Your task to perform on an android device: open app "eBay: The shopping marketplace" (install if not already installed) and go to login screen Image 0: 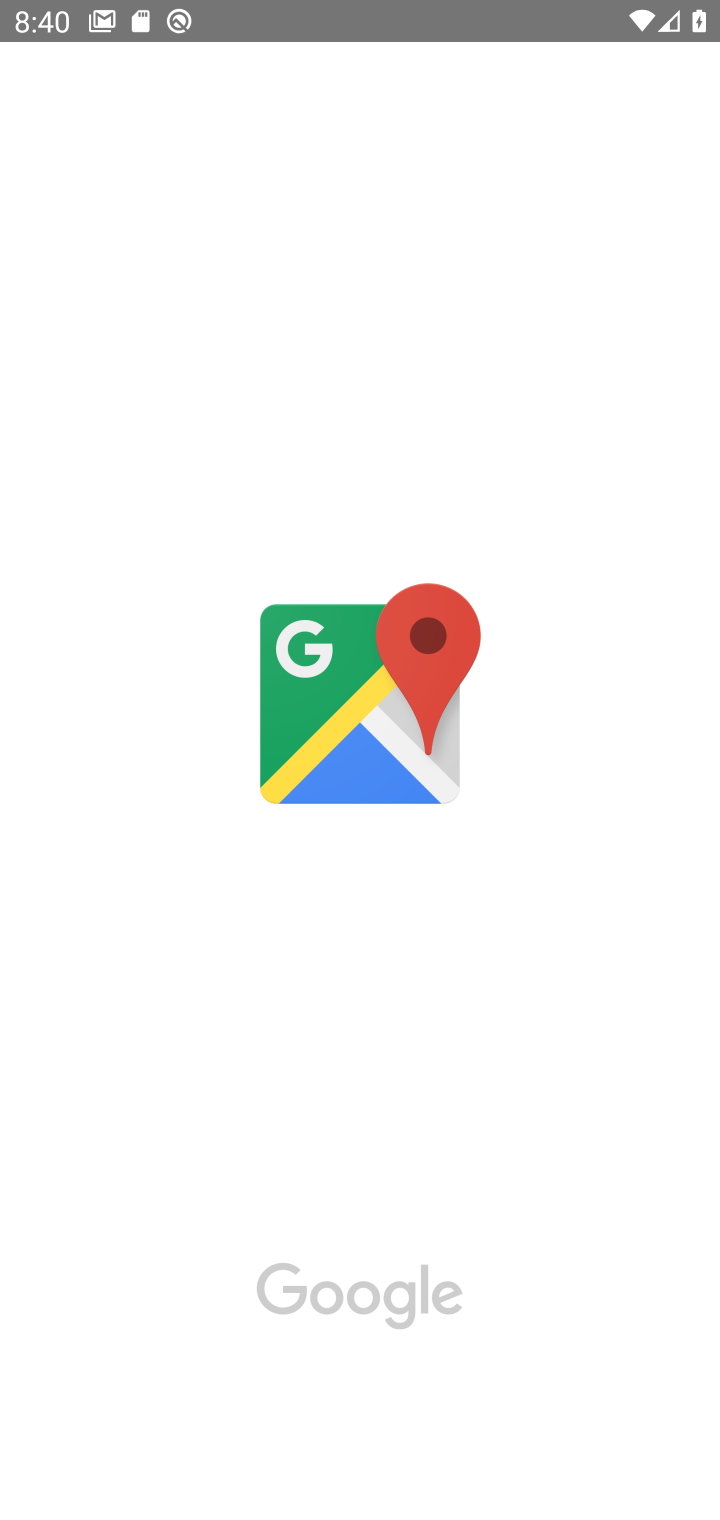
Step 0: press home button
Your task to perform on an android device: open app "eBay: The shopping marketplace" (install if not already installed) and go to login screen Image 1: 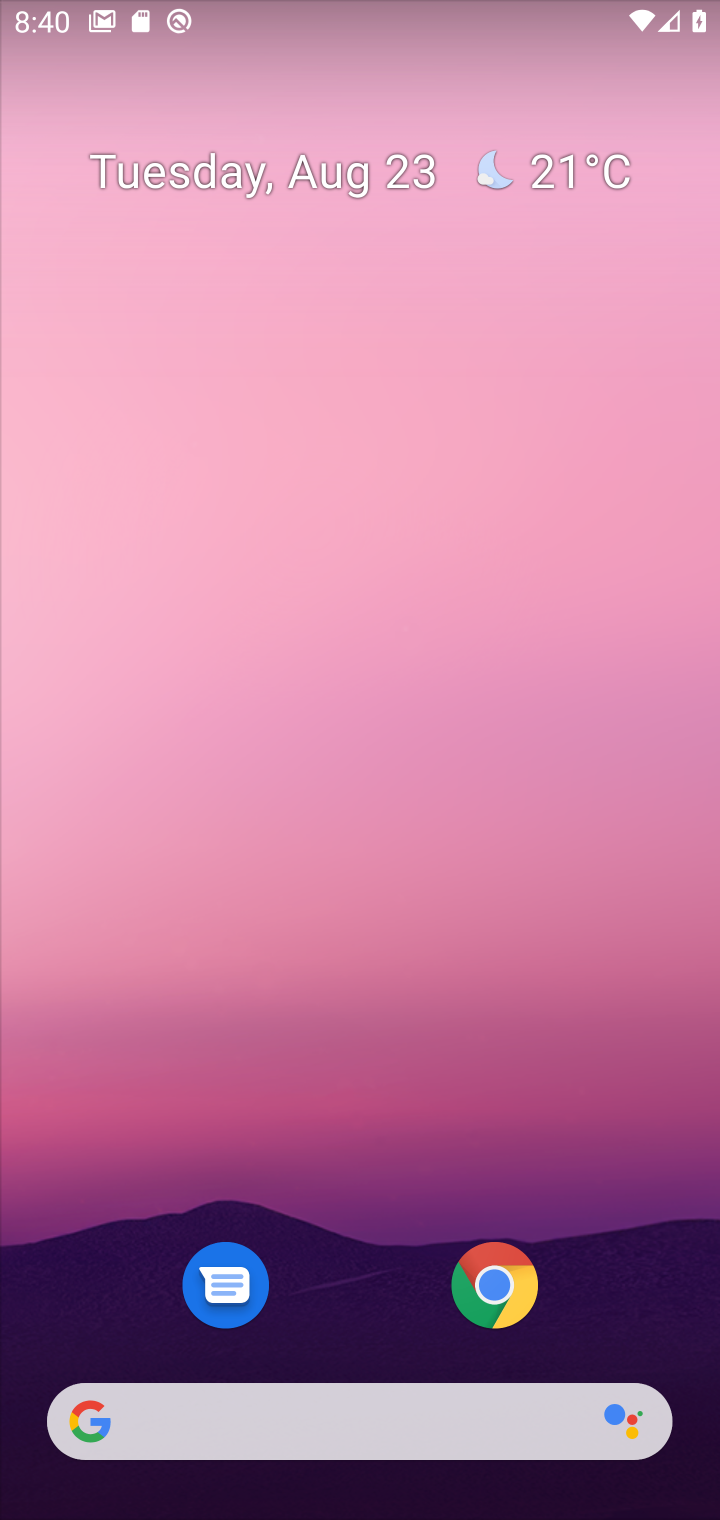
Step 1: drag from (666, 1306) to (676, 275)
Your task to perform on an android device: open app "eBay: The shopping marketplace" (install if not already installed) and go to login screen Image 2: 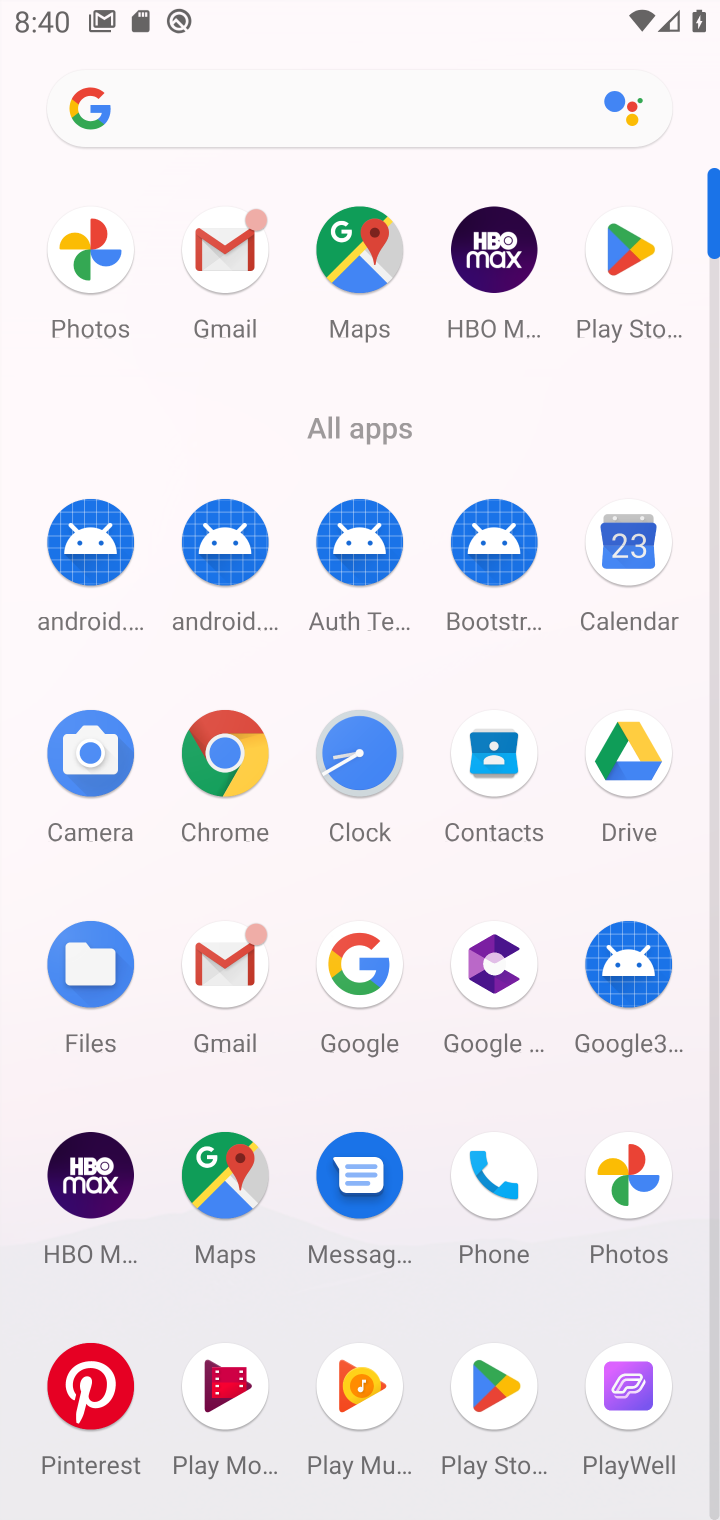
Step 2: click (498, 1385)
Your task to perform on an android device: open app "eBay: The shopping marketplace" (install if not already installed) and go to login screen Image 3: 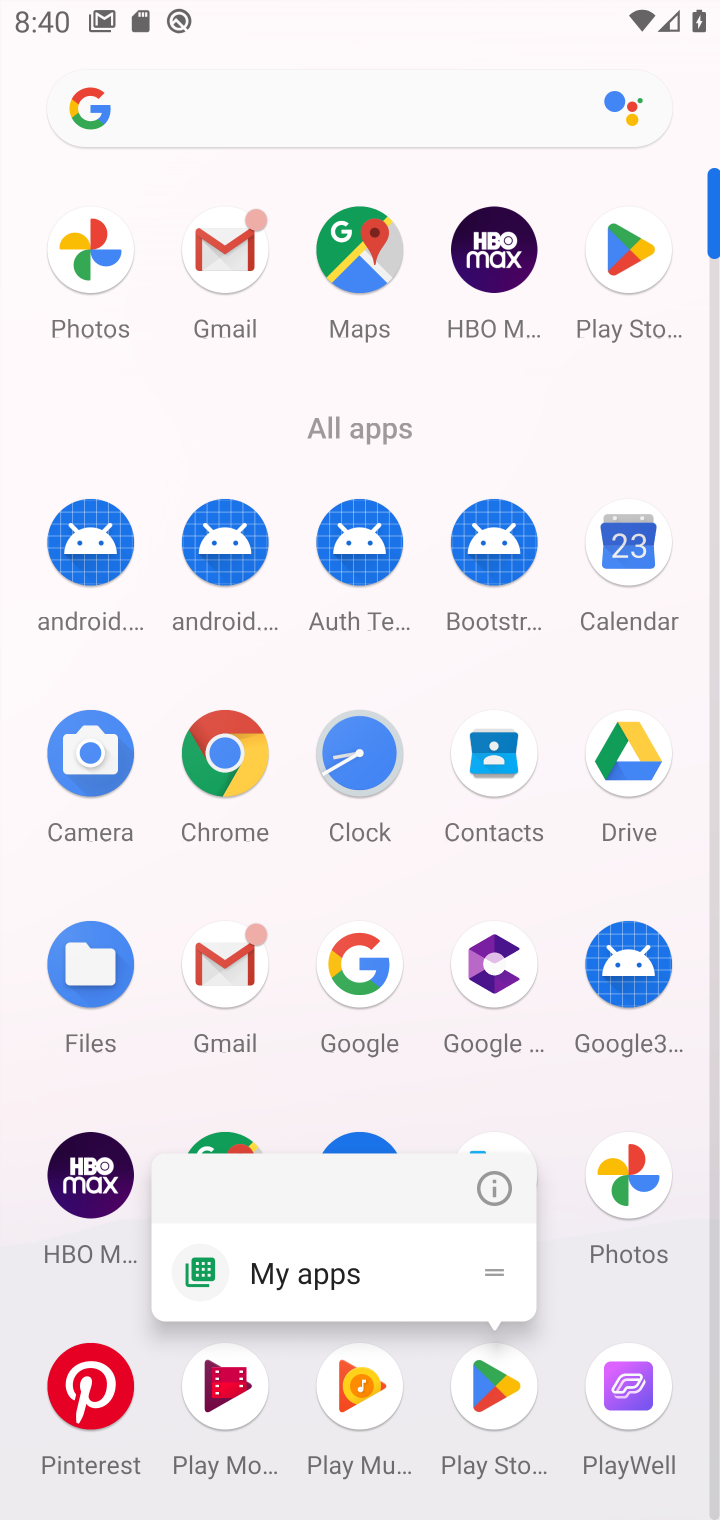
Step 3: click (491, 1390)
Your task to perform on an android device: open app "eBay: The shopping marketplace" (install if not already installed) and go to login screen Image 4: 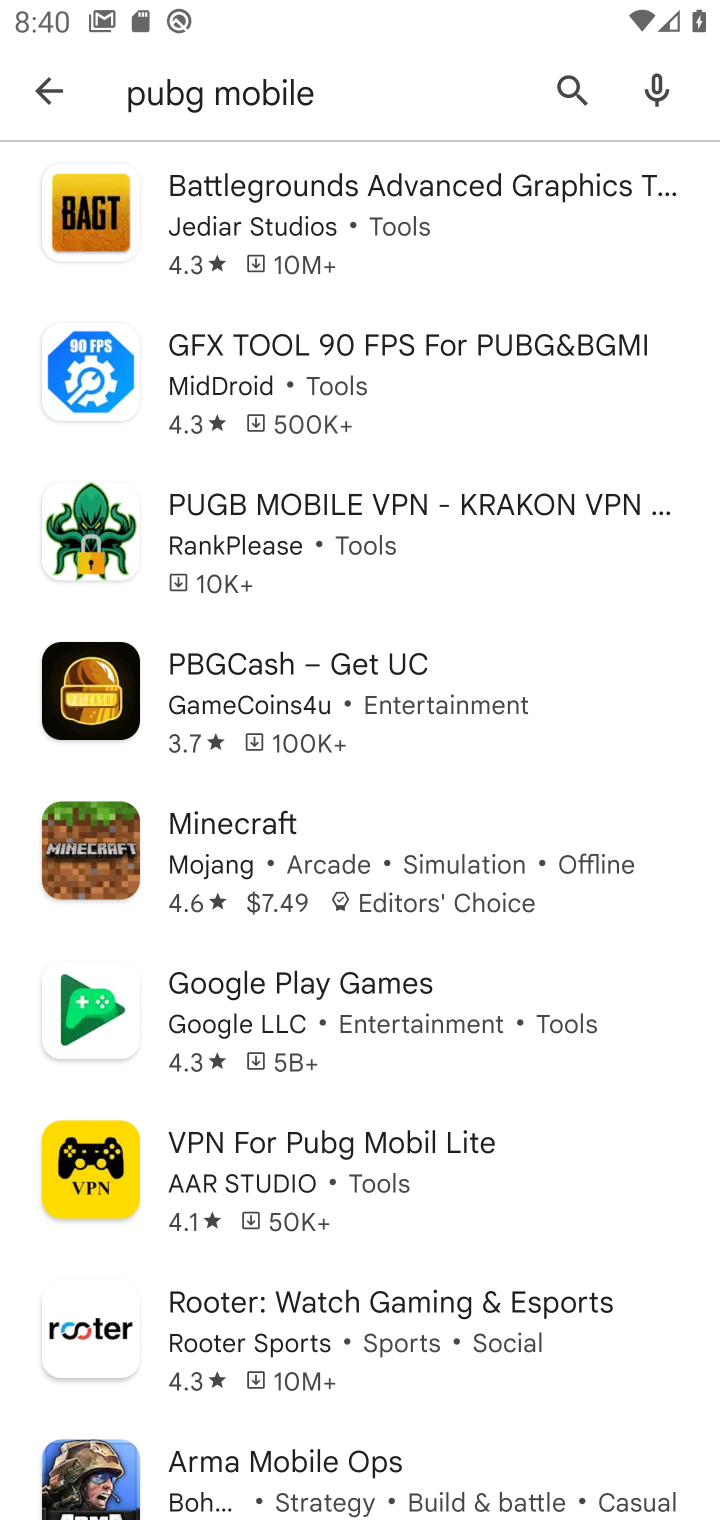
Step 4: click (569, 88)
Your task to perform on an android device: open app "eBay: The shopping marketplace" (install if not already installed) and go to login screen Image 5: 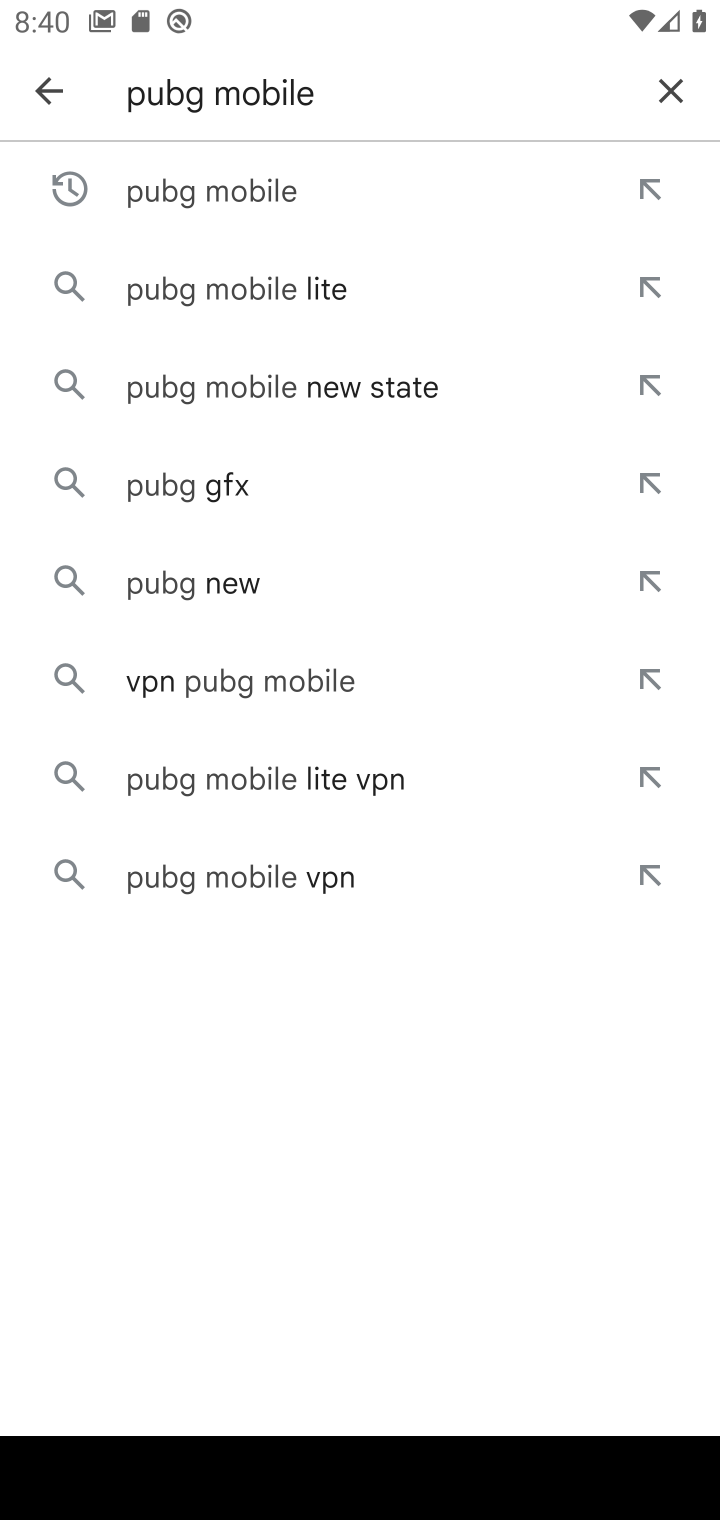
Step 5: click (667, 84)
Your task to perform on an android device: open app "eBay: The shopping marketplace" (install if not already installed) and go to login screen Image 6: 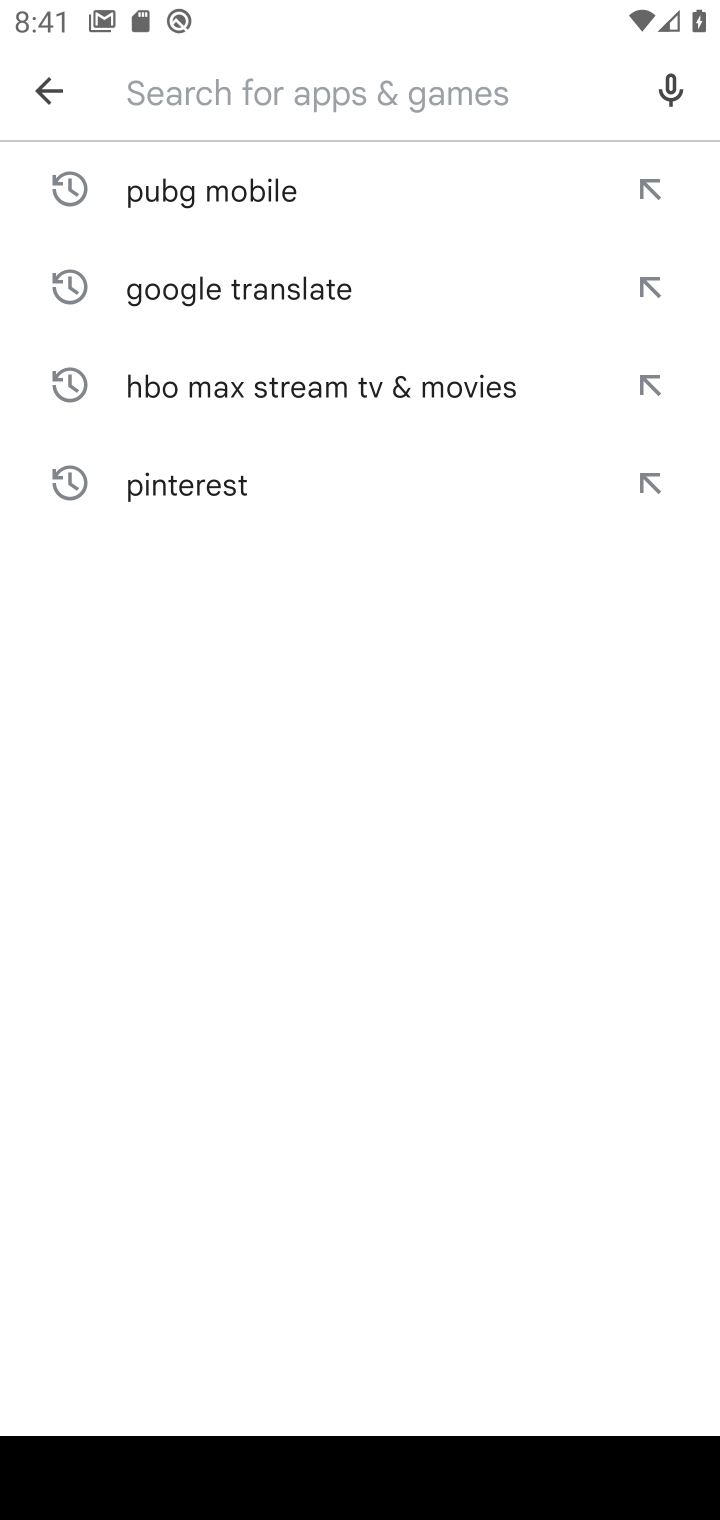
Step 6: type "eBay: The shopping marketplace"
Your task to perform on an android device: open app "eBay: The shopping marketplace" (install if not already installed) and go to login screen Image 7: 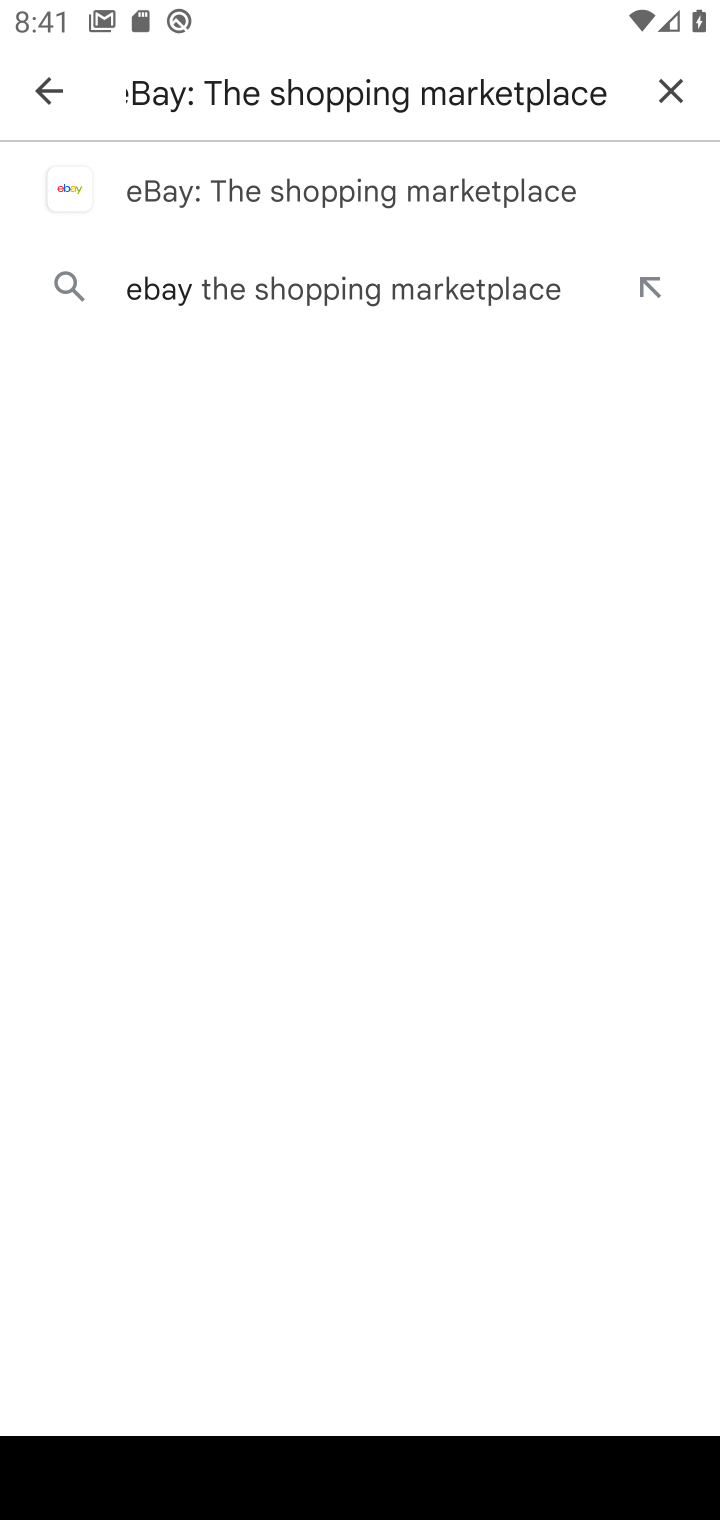
Step 7: click (242, 183)
Your task to perform on an android device: open app "eBay: The shopping marketplace" (install if not already installed) and go to login screen Image 8: 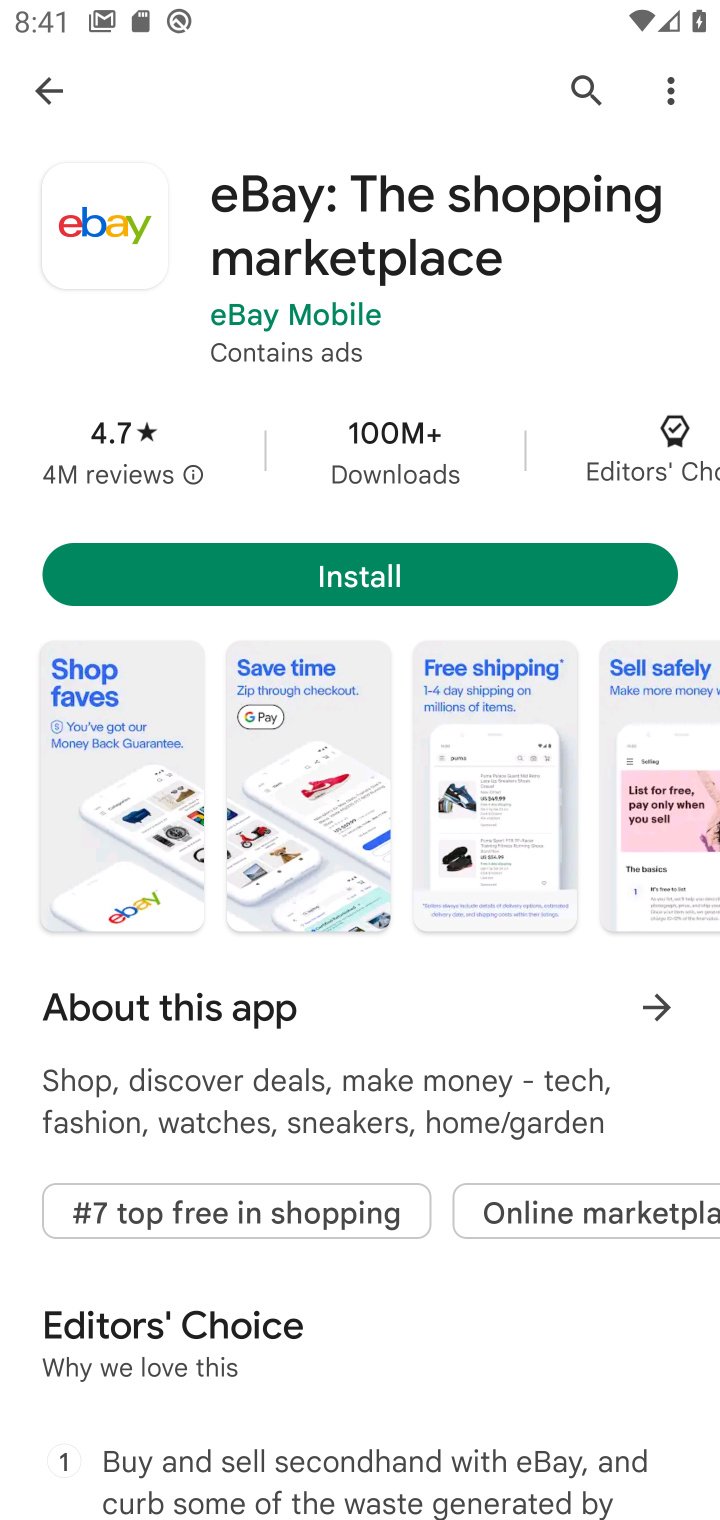
Step 8: click (351, 572)
Your task to perform on an android device: open app "eBay: The shopping marketplace" (install if not already installed) and go to login screen Image 9: 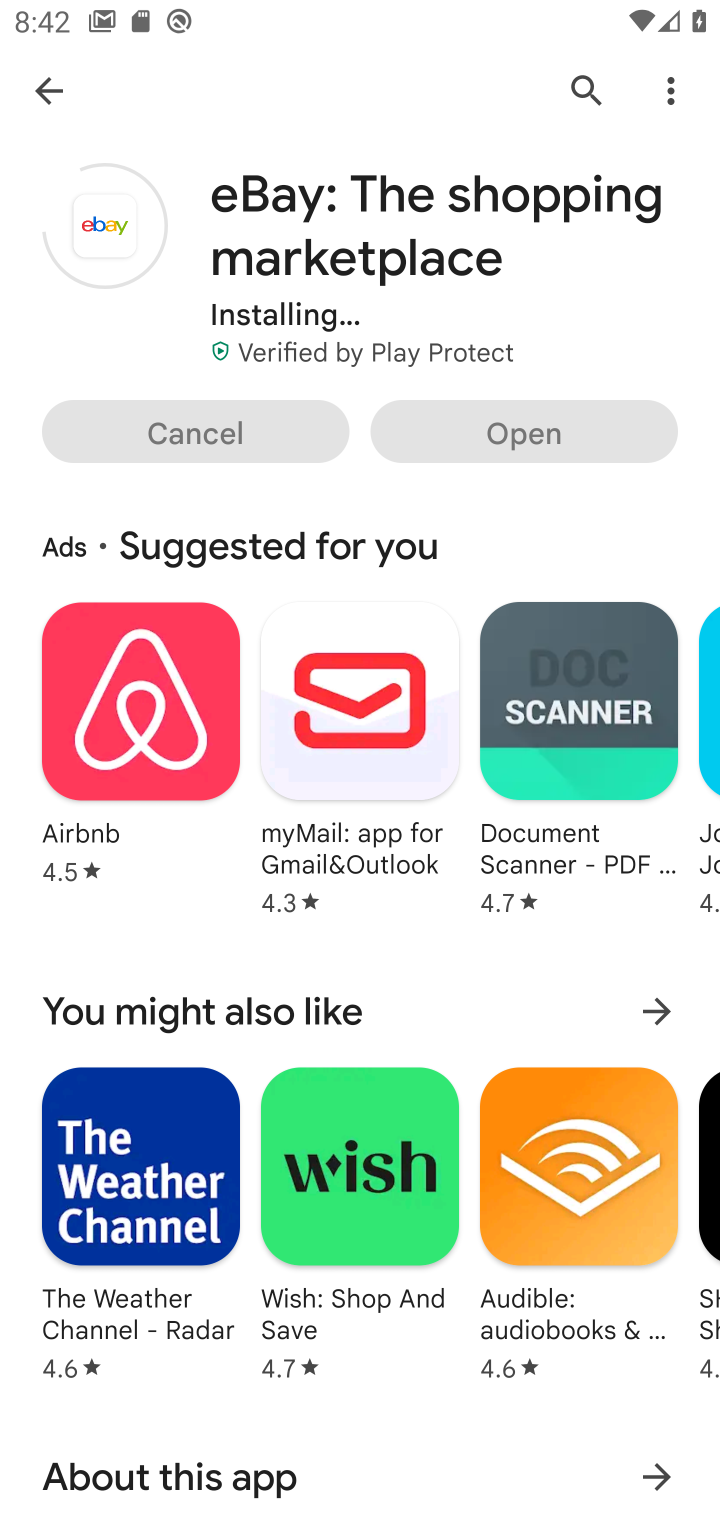
Step 9: drag from (369, 249) to (367, 342)
Your task to perform on an android device: open app "eBay: The shopping marketplace" (install if not already installed) and go to login screen Image 10: 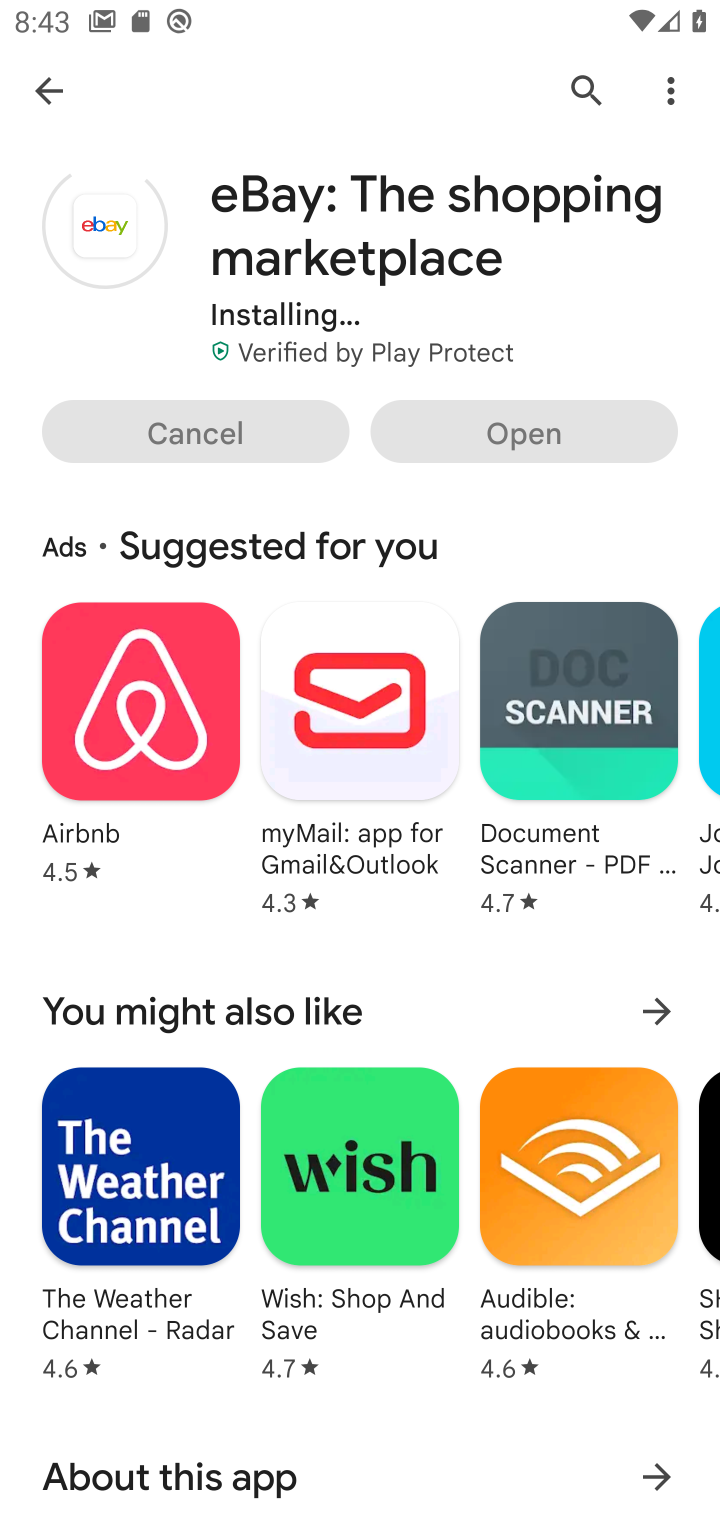
Step 10: click (364, 455)
Your task to perform on an android device: open app "eBay: The shopping marketplace" (install if not already installed) and go to login screen Image 11: 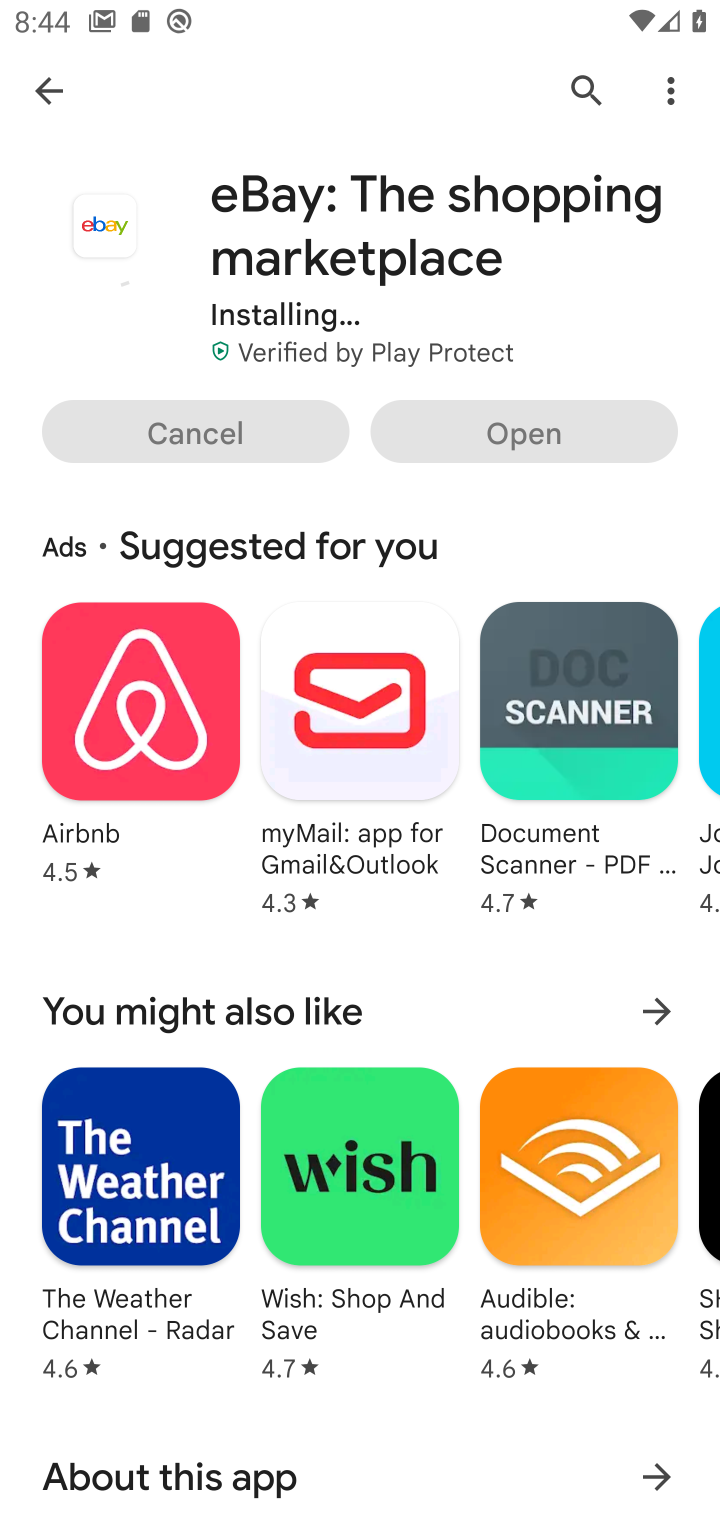
Step 11: click (518, 424)
Your task to perform on an android device: open app "eBay: The shopping marketplace" (install if not already installed) and go to login screen Image 12: 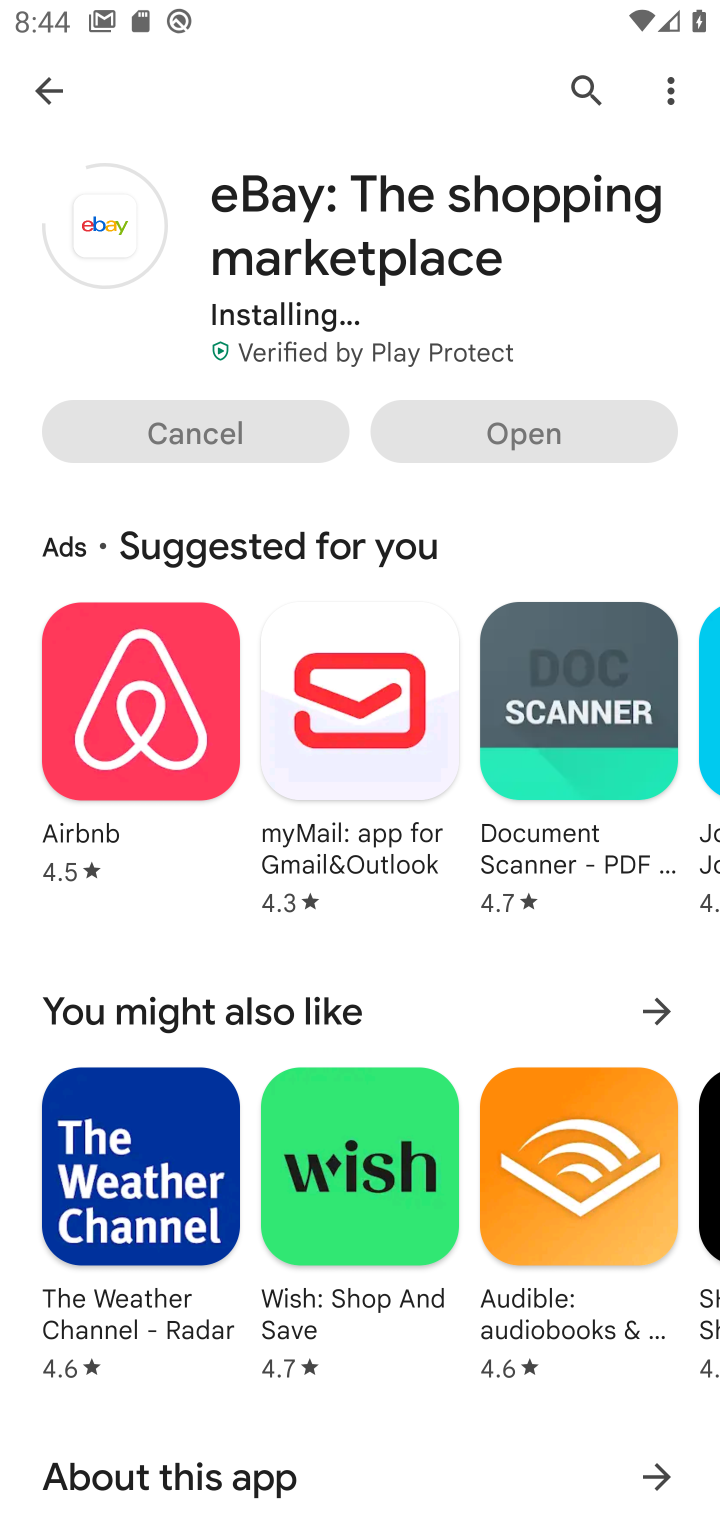
Step 12: click (411, 448)
Your task to perform on an android device: open app "eBay: The shopping marketplace" (install if not already installed) and go to login screen Image 13: 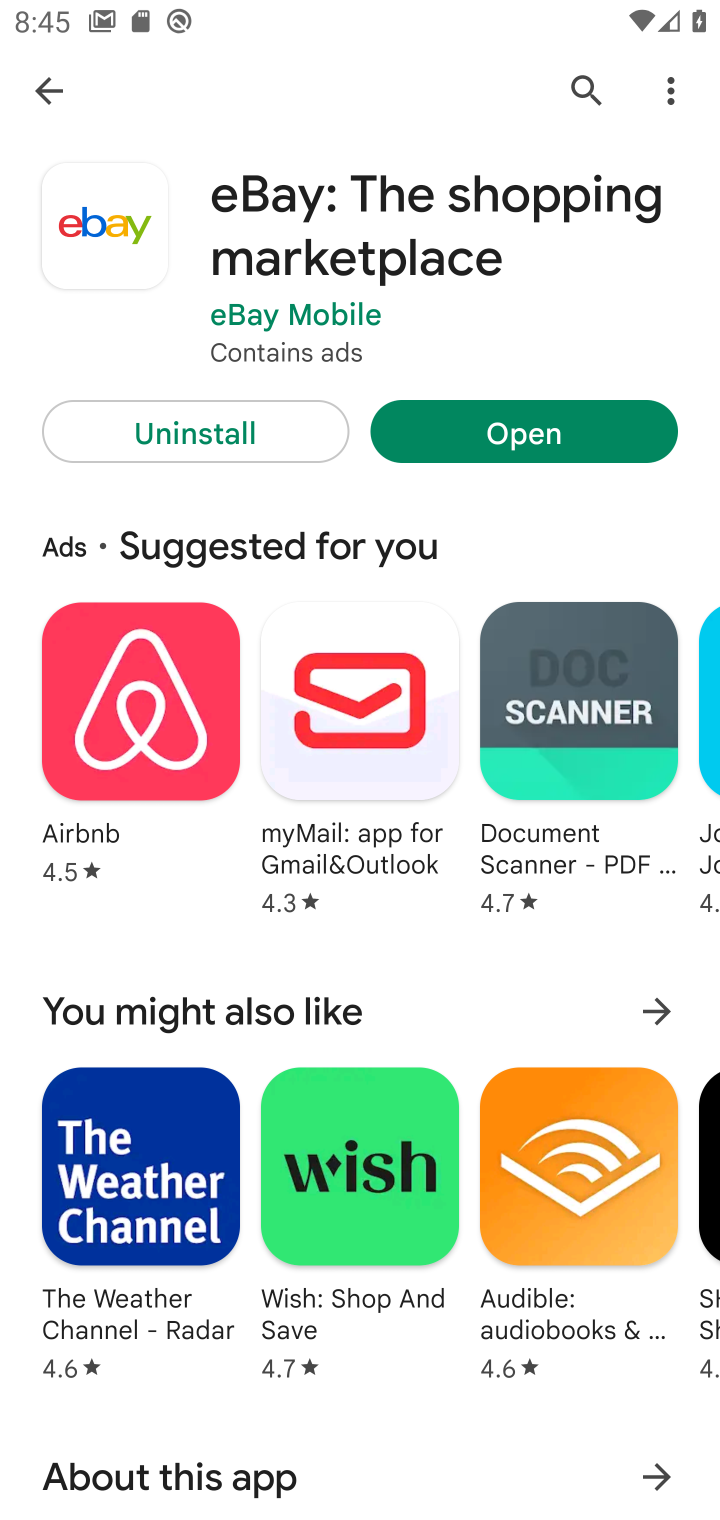
Step 13: click (524, 439)
Your task to perform on an android device: open app "eBay: The shopping marketplace" (install if not already installed) and go to login screen Image 14: 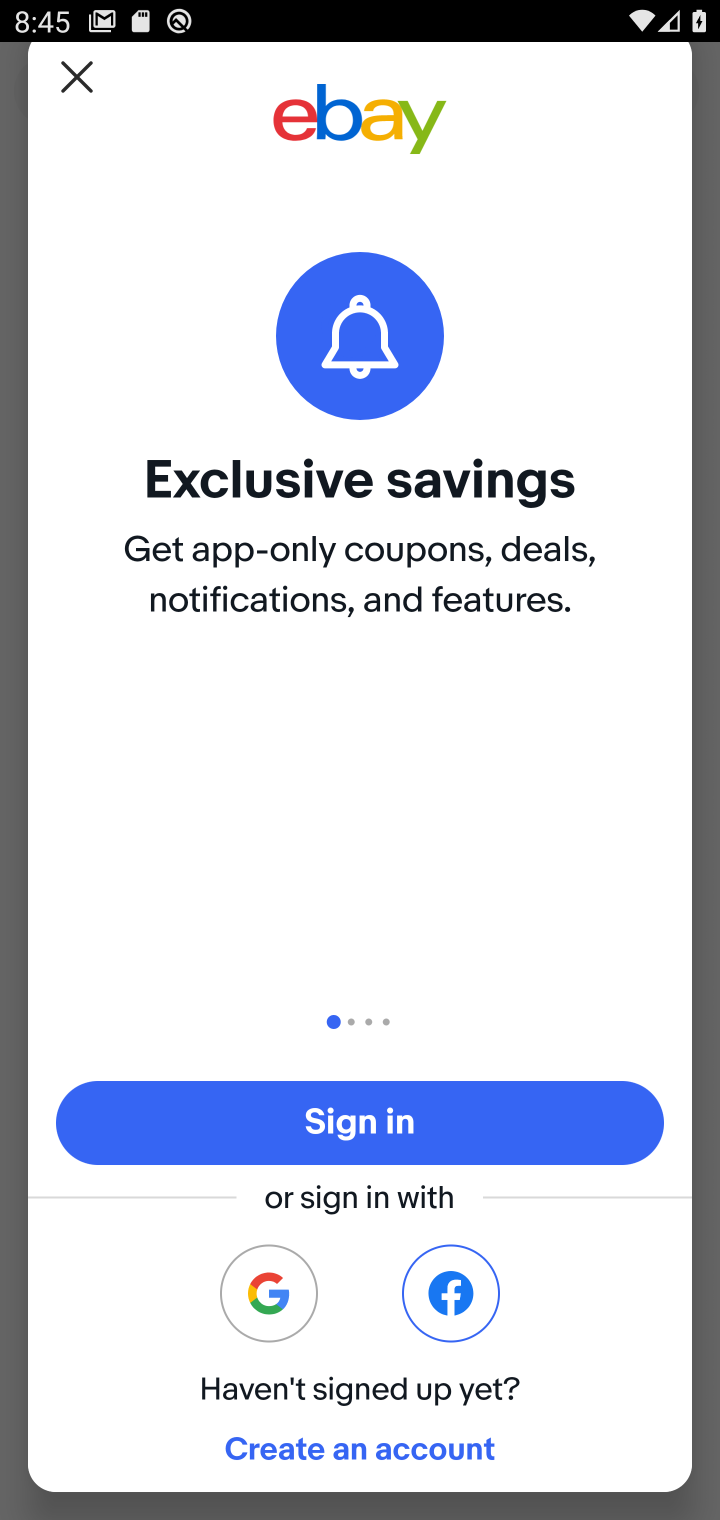
Step 14: click (347, 1117)
Your task to perform on an android device: open app "eBay: The shopping marketplace" (install if not already installed) and go to login screen Image 15: 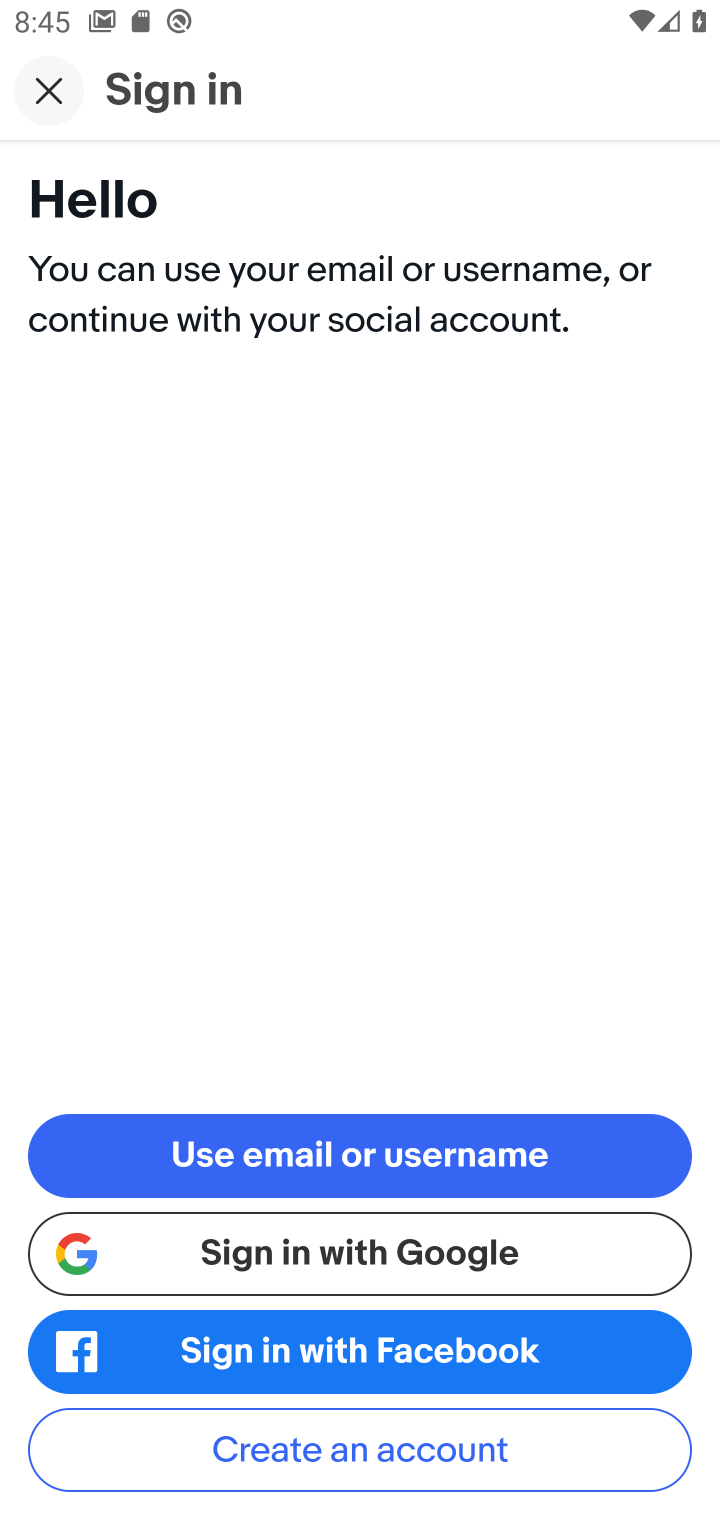
Step 15: task complete